Your task to perform on an android device: open the mobile data screen to see how much data has been used Image 0: 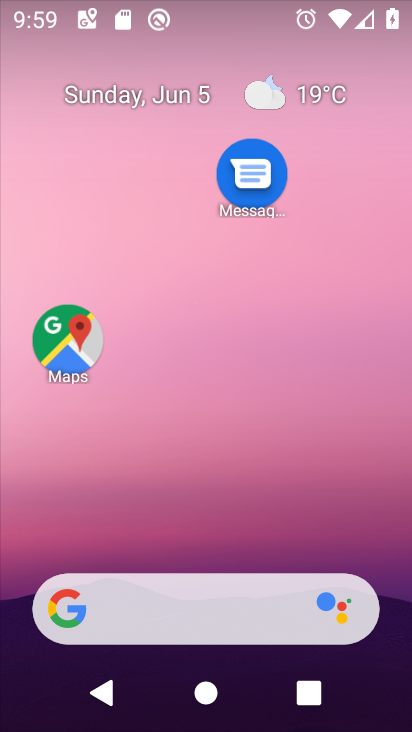
Step 0: drag from (245, 349) to (355, 15)
Your task to perform on an android device: open the mobile data screen to see how much data has been used Image 1: 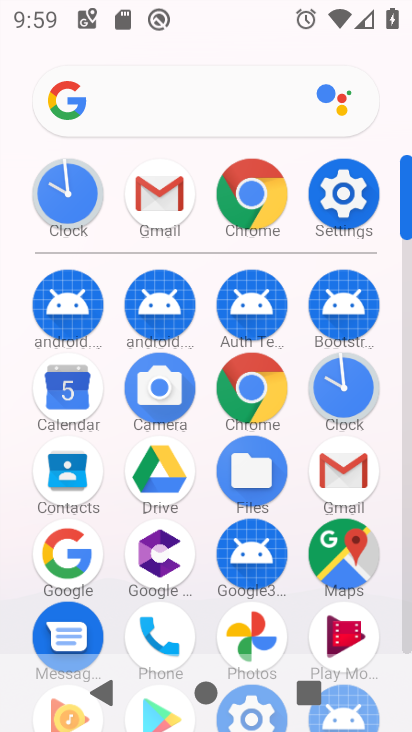
Step 1: click (350, 183)
Your task to perform on an android device: open the mobile data screen to see how much data has been used Image 2: 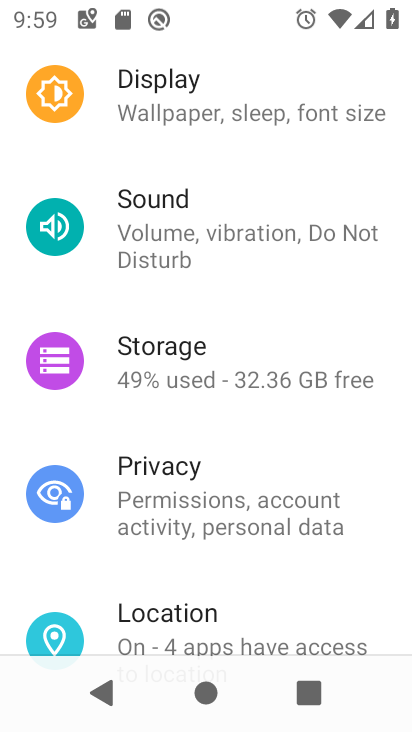
Step 2: drag from (208, 240) to (408, 679)
Your task to perform on an android device: open the mobile data screen to see how much data has been used Image 3: 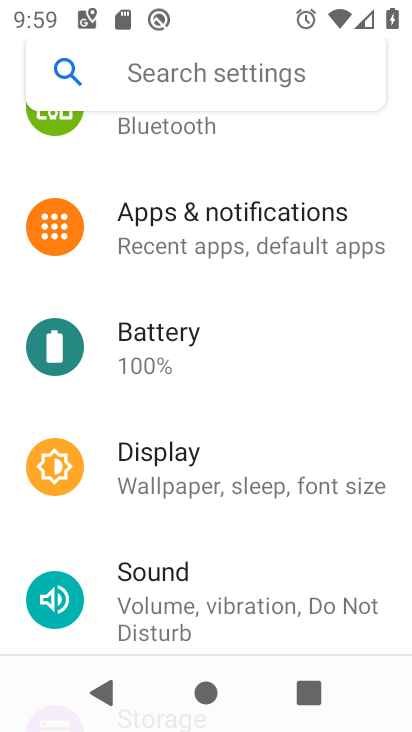
Step 3: drag from (190, 186) to (410, 581)
Your task to perform on an android device: open the mobile data screen to see how much data has been used Image 4: 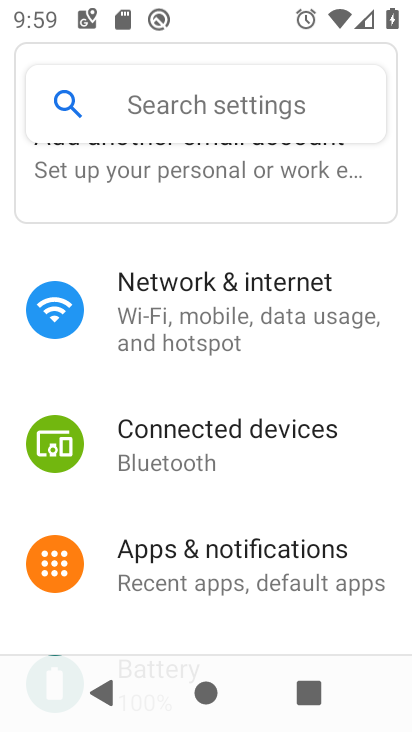
Step 4: click (190, 315)
Your task to perform on an android device: open the mobile data screen to see how much data has been used Image 5: 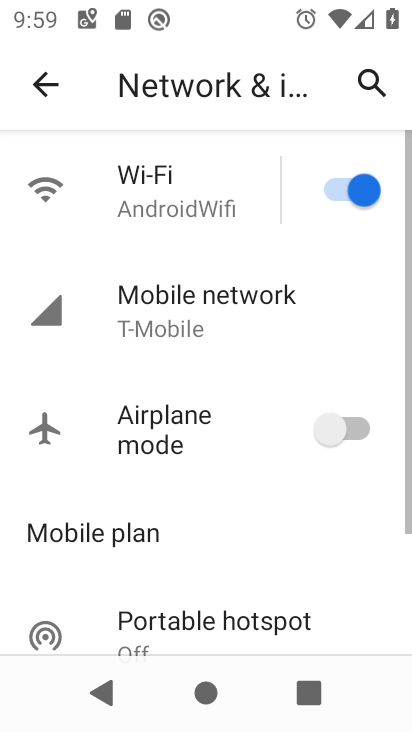
Step 5: click (174, 280)
Your task to perform on an android device: open the mobile data screen to see how much data has been used Image 6: 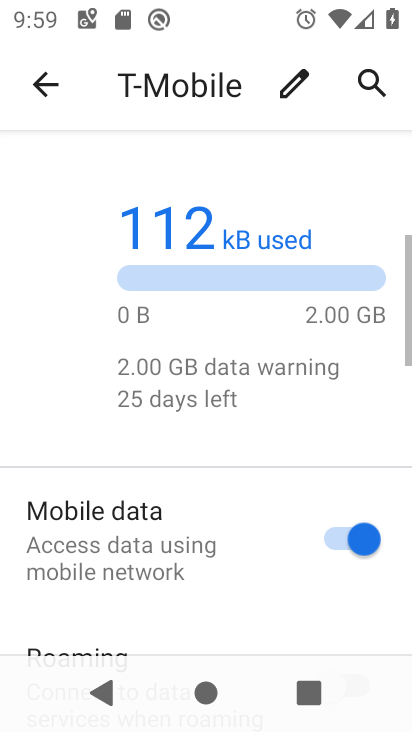
Step 6: task complete